Your task to perform on an android device: Find coffee shops on Maps Image 0: 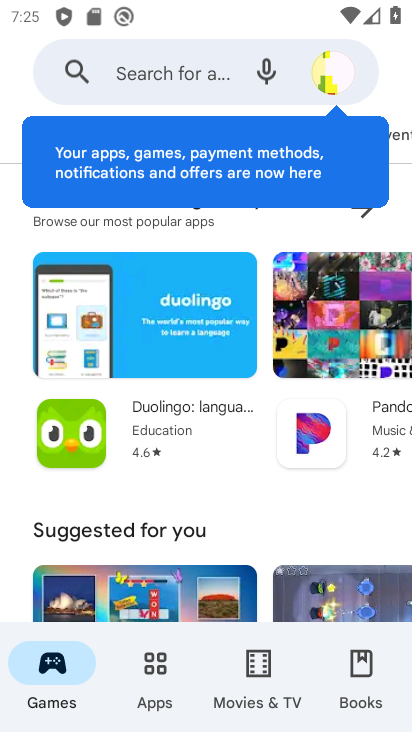
Step 0: press home button
Your task to perform on an android device: Find coffee shops on Maps Image 1: 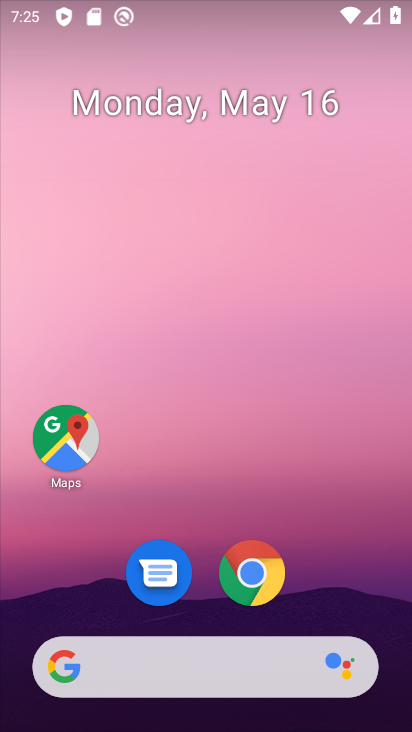
Step 1: drag from (330, 564) to (223, 3)
Your task to perform on an android device: Find coffee shops on Maps Image 2: 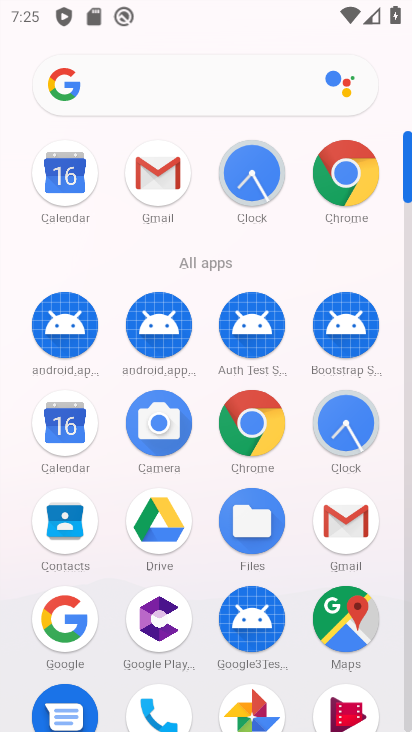
Step 2: click (353, 667)
Your task to perform on an android device: Find coffee shops on Maps Image 3: 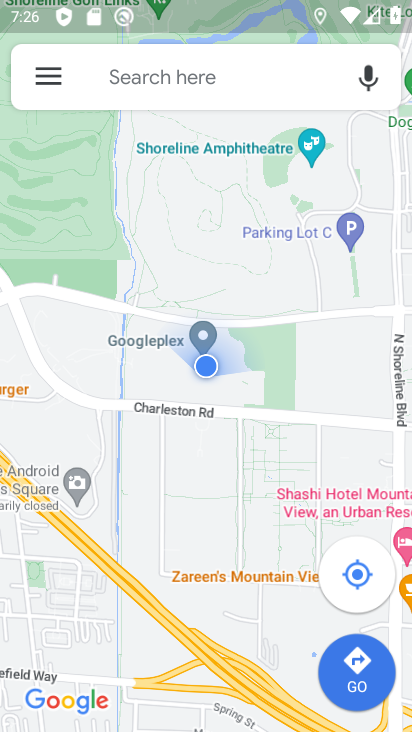
Step 3: task complete